Your task to perform on an android device: Open the Play Movies app and select the watchlist tab. Image 0: 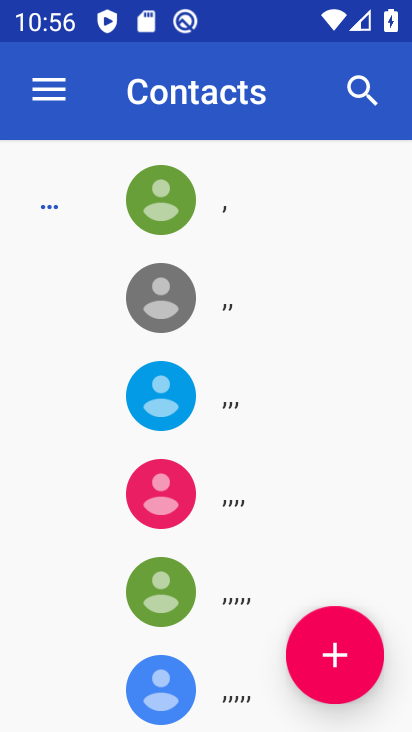
Step 0: press back button
Your task to perform on an android device: Open the Play Movies app and select the watchlist tab. Image 1: 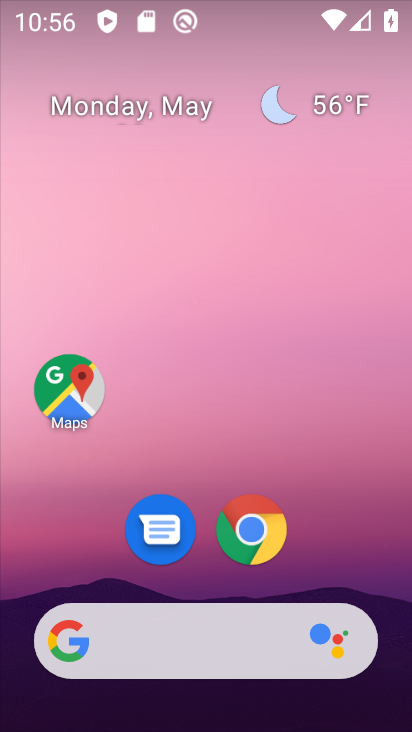
Step 1: drag from (331, 538) to (269, 75)
Your task to perform on an android device: Open the Play Movies app and select the watchlist tab. Image 2: 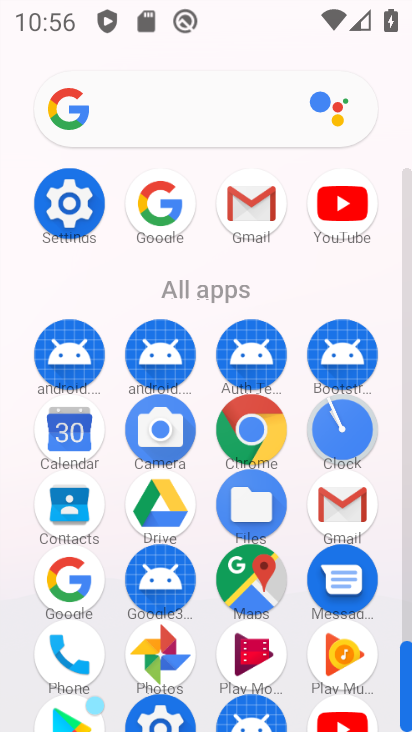
Step 2: drag from (294, 618) to (311, 429)
Your task to perform on an android device: Open the Play Movies app and select the watchlist tab. Image 3: 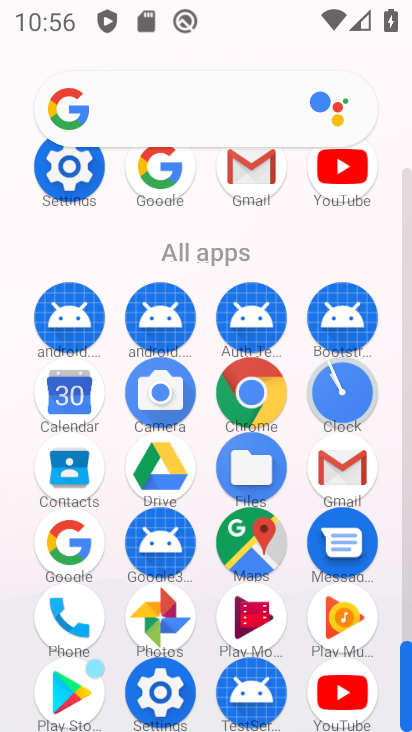
Step 3: click (253, 614)
Your task to perform on an android device: Open the Play Movies app and select the watchlist tab. Image 4: 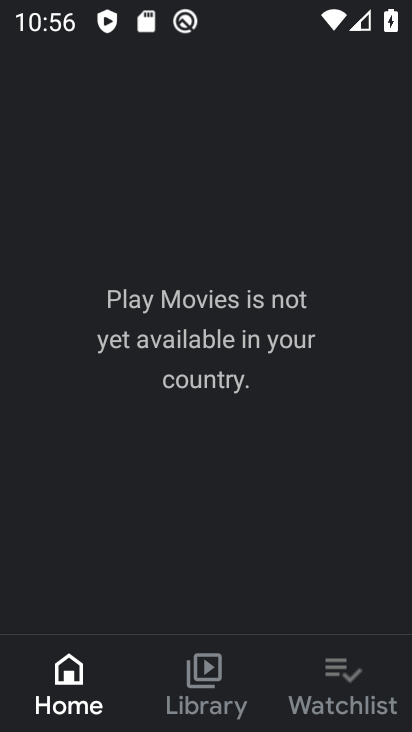
Step 4: click (340, 668)
Your task to perform on an android device: Open the Play Movies app and select the watchlist tab. Image 5: 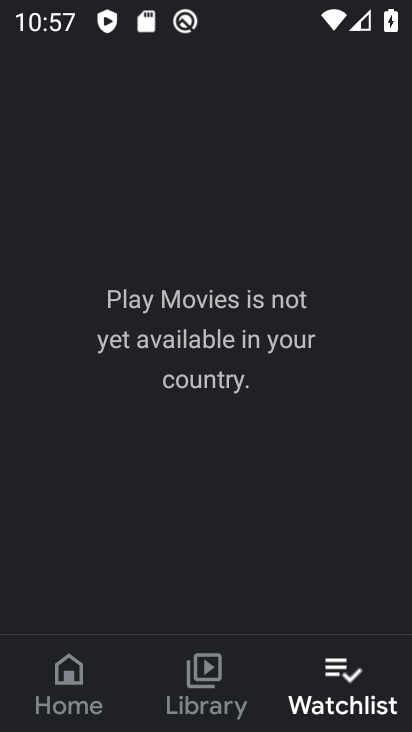
Step 5: task complete